Your task to perform on an android device: turn pop-ups off in chrome Image 0: 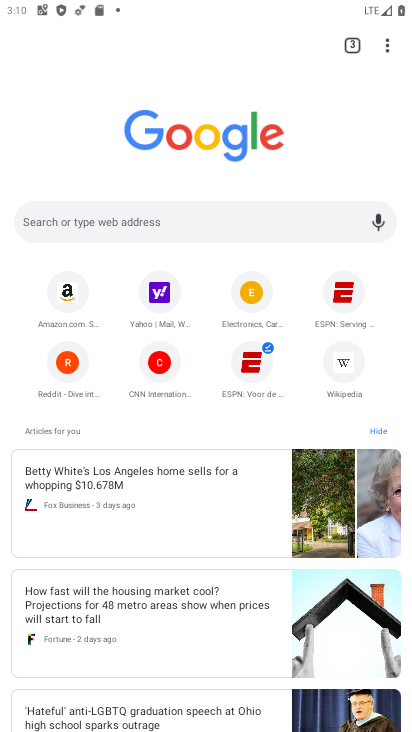
Step 0: drag from (383, 44) to (206, 388)
Your task to perform on an android device: turn pop-ups off in chrome Image 1: 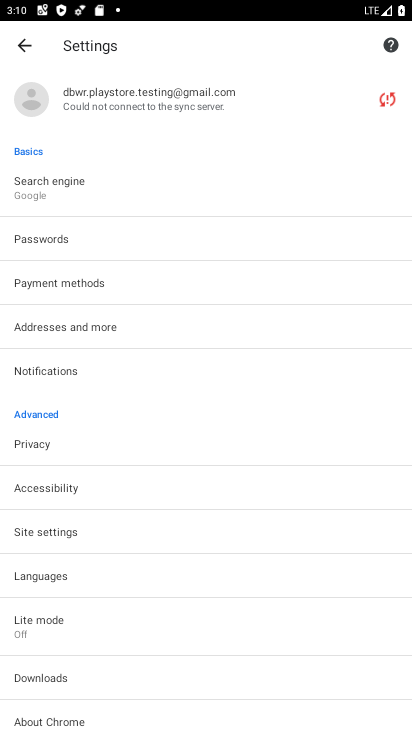
Step 1: click (72, 528)
Your task to perform on an android device: turn pop-ups off in chrome Image 2: 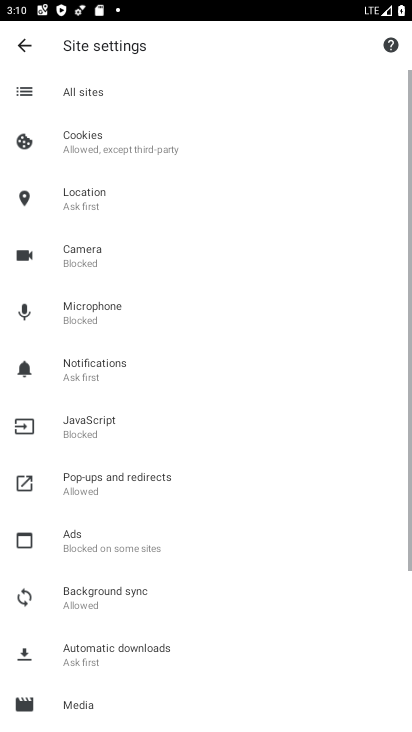
Step 2: click (127, 482)
Your task to perform on an android device: turn pop-ups off in chrome Image 3: 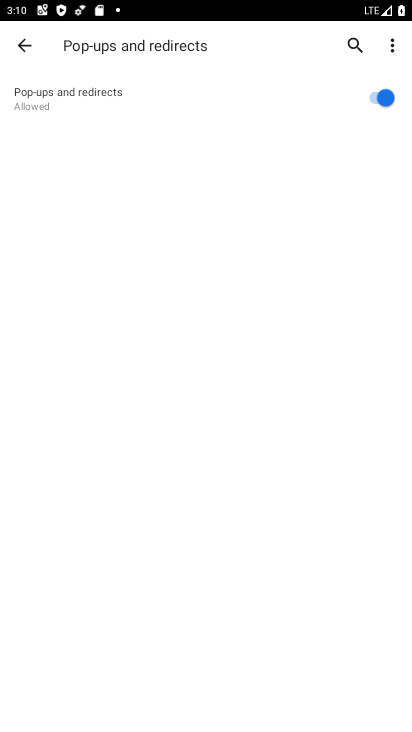
Step 3: click (374, 94)
Your task to perform on an android device: turn pop-ups off in chrome Image 4: 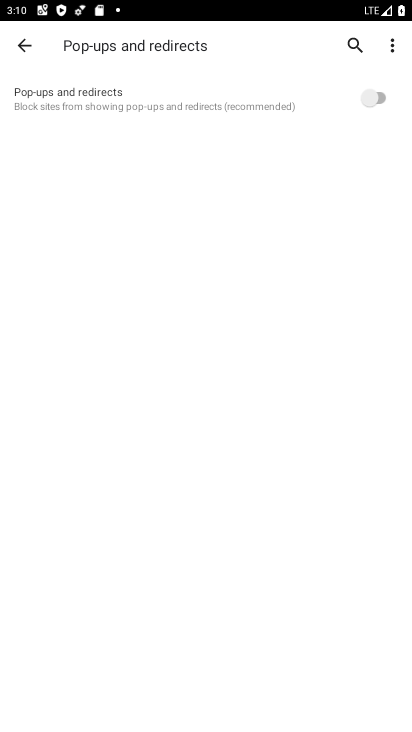
Step 4: task complete